Your task to perform on an android device: turn on airplane mode Image 0: 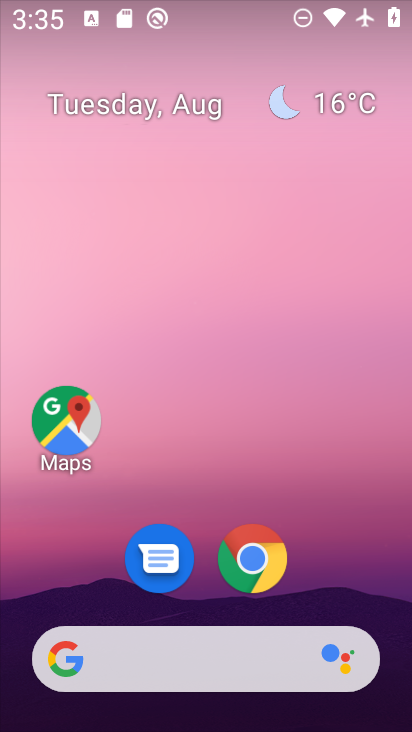
Step 0: drag from (202, 385) to (205, 127)
Your task to perform on an android device: turn on airplane mode Image 1: 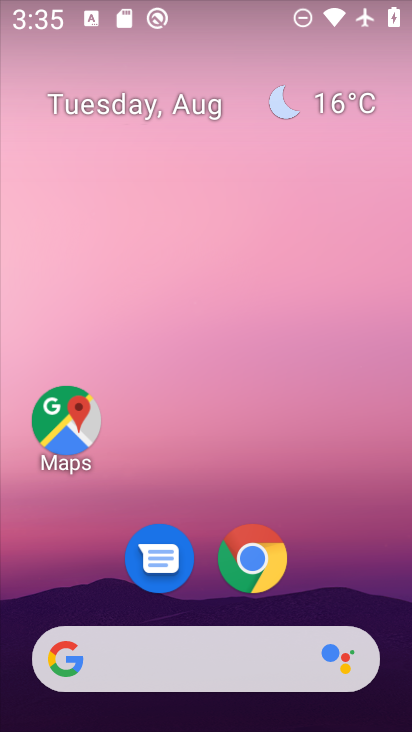
Step 1: drag from (195, 491) to (209, 133)
Your task to perform on an android device: turn on airplane mode Image 2: 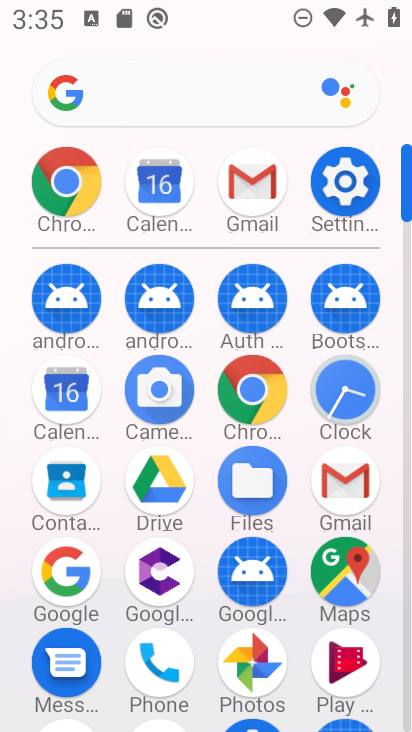
Step 2: click (346, 191)
Your task to perform on an android device: turn on airplane mode Image 3: 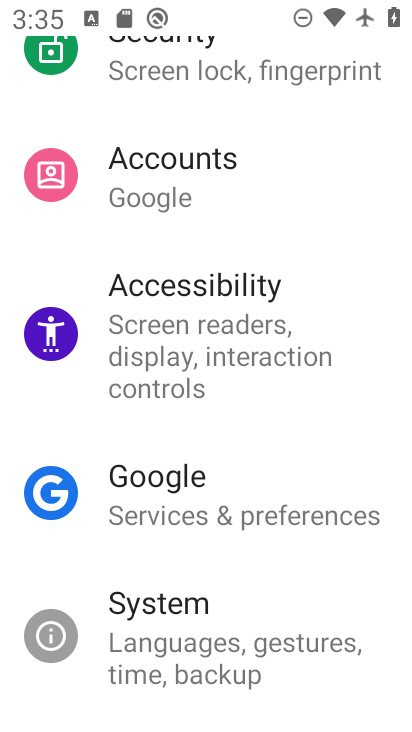
Step 3: drag from (198, 229) to (288, 606)
Your task to perform on an android device: turn on airplane mode Image 4: 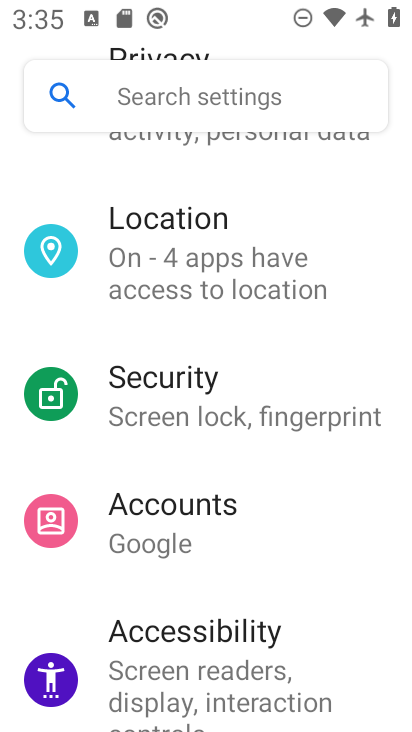
Step 4: drag from (243, 306) to (277, 638)
Your task to perform on an android device: turn on airplane mode Image 5: 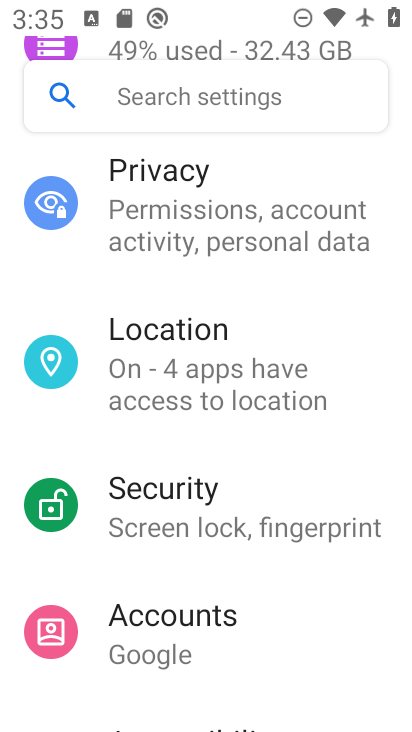
Step 5: drag from (237, 265) to (277, 614)
Your task to perform on an android device: turn on airplane mode Image 6: 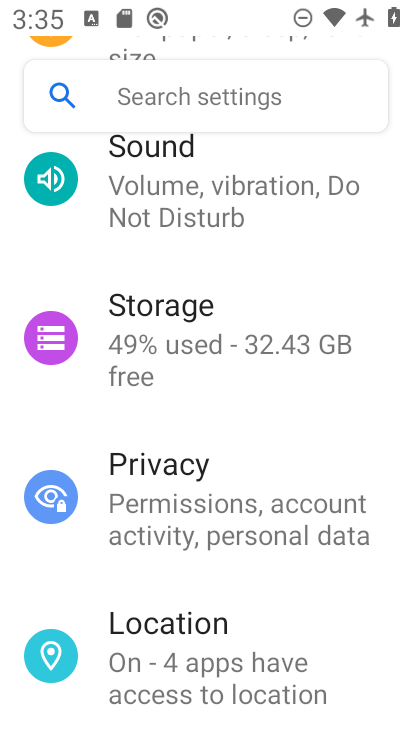
Step 6: drag from (214, 244) to (254, 586)
Your task to perform on an android device: turn on airplane mode Image 7: 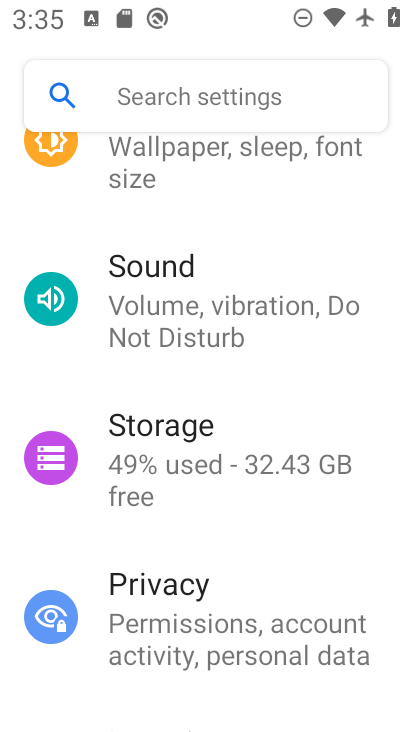
Step 7: drag from (230, 292) to (266, 606)
Your task to perform on an android device: turn on airplane mode Image 8: 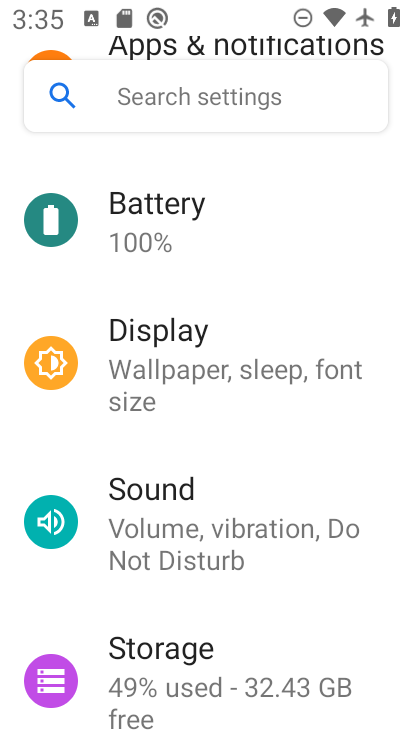
Step 8: drag from (196, 265) to (224, 544)
Your task to perform on an android device: turn on airplane mode Image 9: 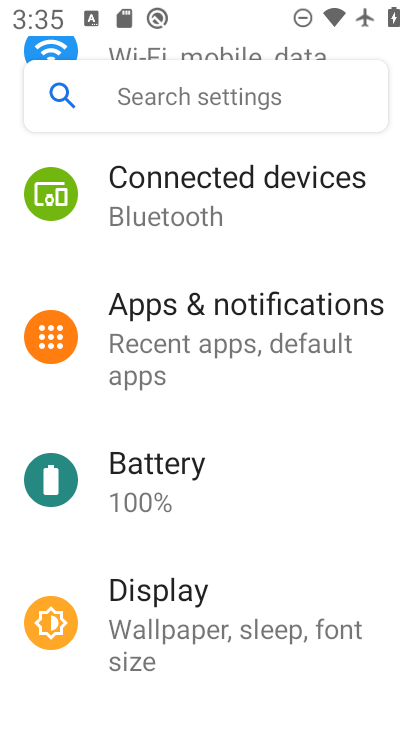
Step 9: click (263, 577)
Your task to perform on an android device: turn on airplane mode Image 10: 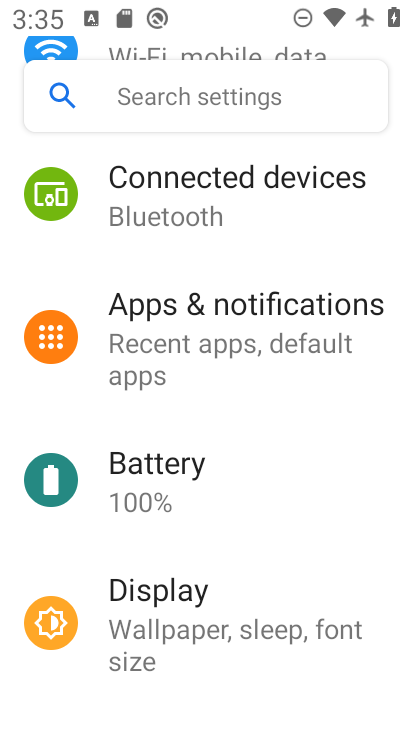
Step 10: drag from (240, 259) to (273, 572)
Your task to perform on an android device: turn on airplane mode Image 11: 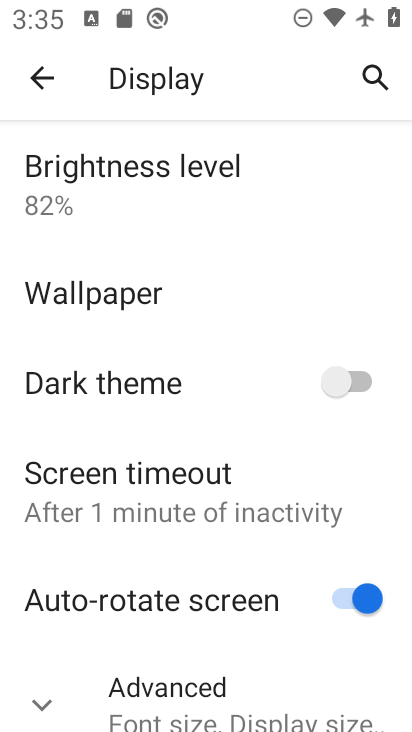
Step 11: click (42, 72)
Your task to perform on an android device: turn on airplane mode Image 12: 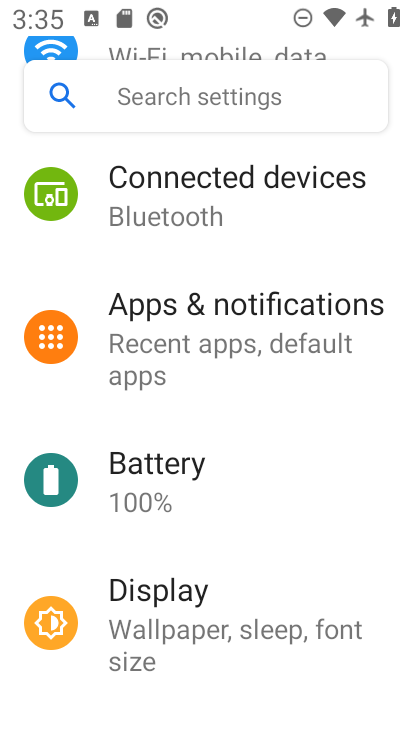
Step 12: drag from (225, 275) to (263, 538)
Your task to perform on an android device: turn on airplane mode Image 13: 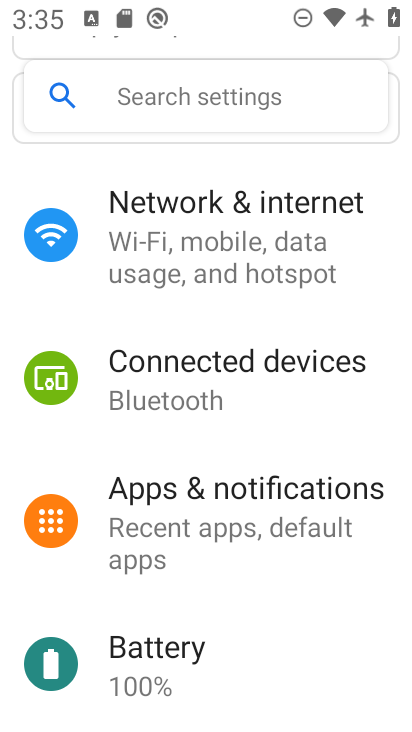
Step 13: click (212, 256)
Your task to perform on an android device: turn on airplane mode Image 14: 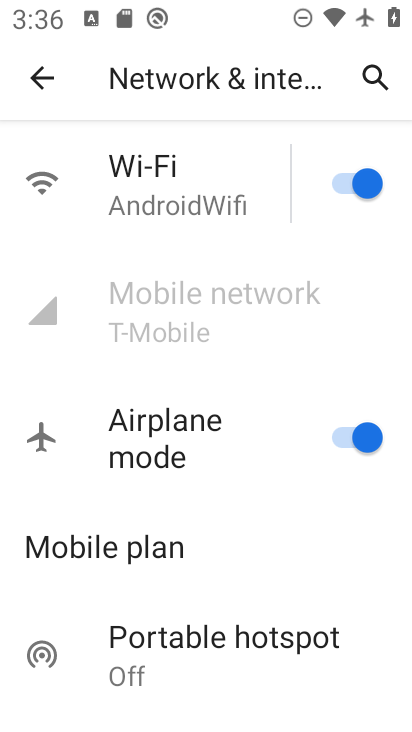
Step 14: task complete